Your task to perform on an android device: Go to sound settings Image 0: 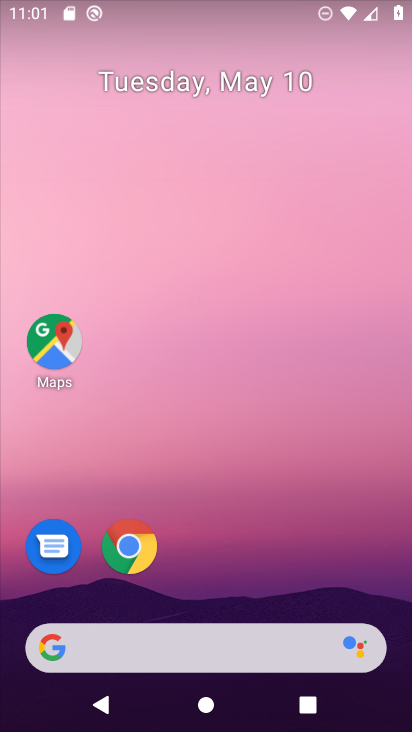
Step 0: drag from (299, 578) to (269, 117)
Your task to perform on an android device: Go to sound settings Image 1: 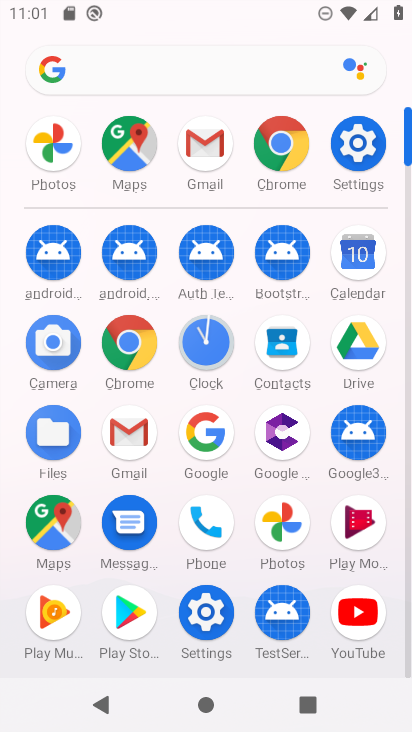
Step 1: click (211, 604)
Your task to perform on an android device: Go to sound settings Image 2: 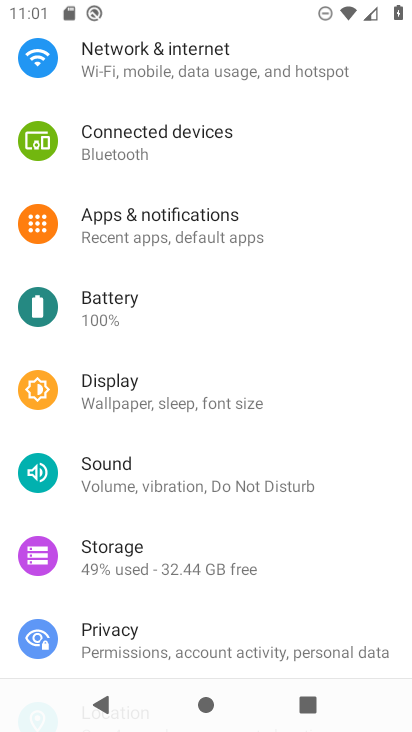
Step 2: click (237, 470)
Your task to perform on an android device: Go to sound settings Image 3: 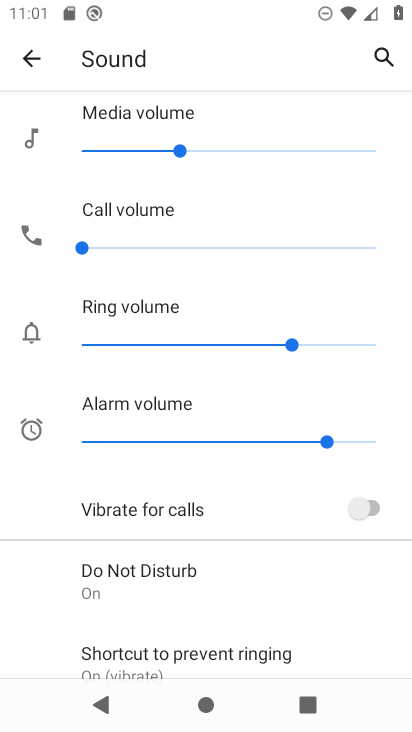
Step 3: task complete